Your task to perform on an android device: move an email to a new category in the gmail app Image 0: 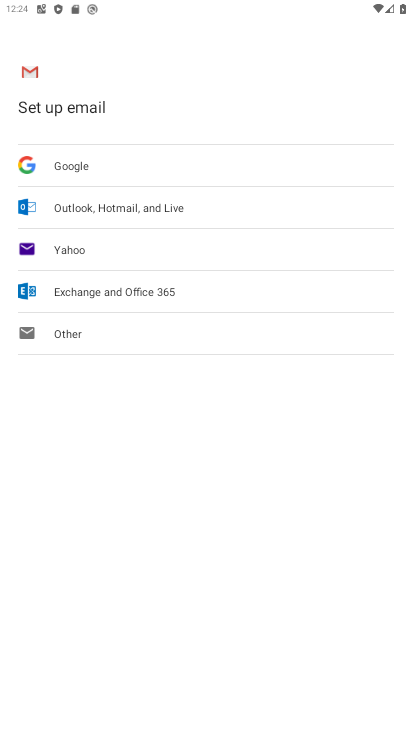
Step 0: press home button
Your task to perform on an android device: move an email to a new category in the gmail app Image 1: 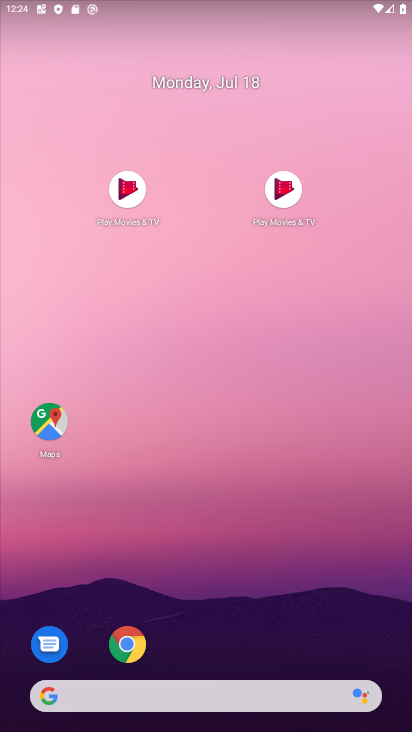
Step 1: drag from (274, 589) to (244, 41)
Your task to perform on an android device: move an email to a new category in the gmail app Image 2: 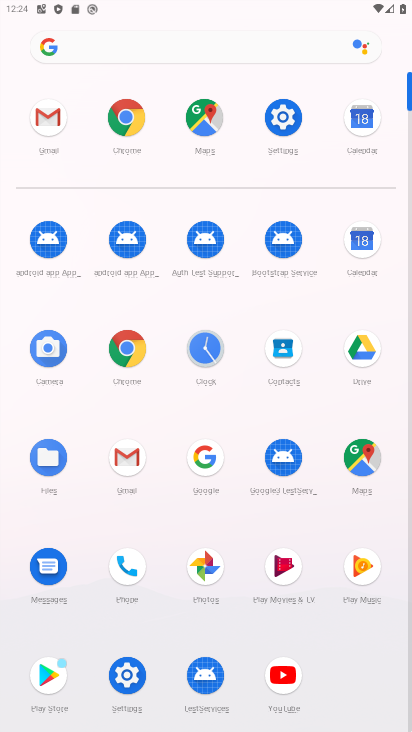
Step 2: click (51, 119)
Your task to perform on an android device: move an email to a new category in the gmail app Image 3: 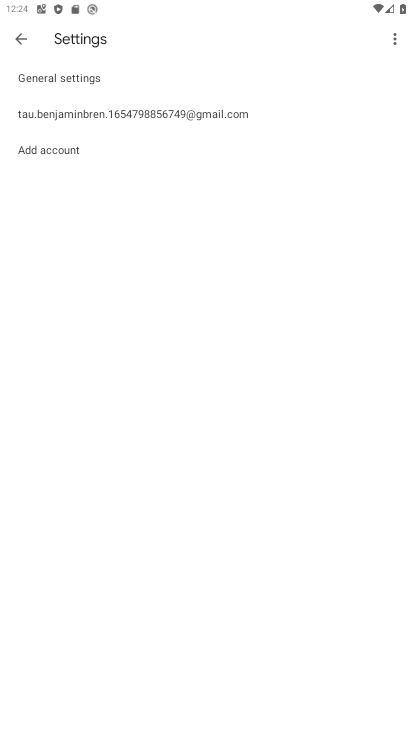
Step 3: click (23, 38)
Your task to perform on an android device: move an email to a new category in the gmail app Image 4: 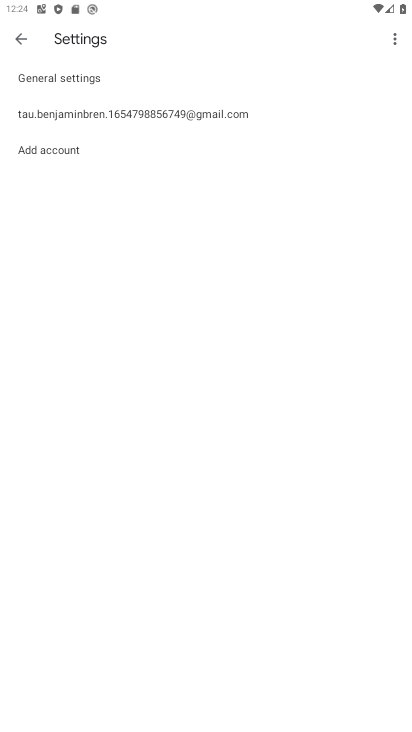
Step 4: click (23, 37)
Your task to perform on an android device: move an email to a new category in the gmail app Image 5: 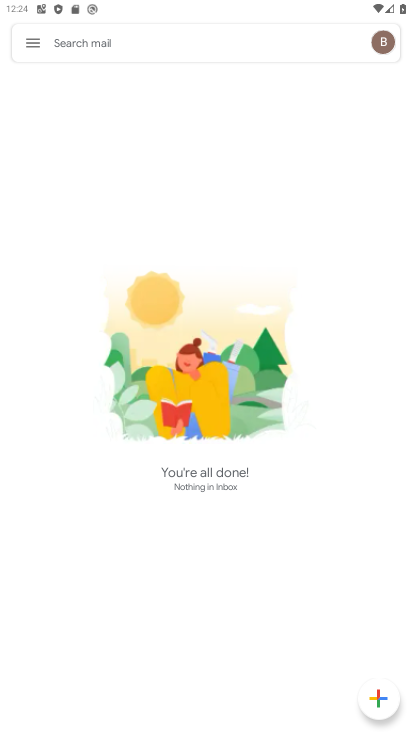
Step 5: click (23, 37)
Your task to perform on an android device: move an email to a new category in the gmail app Image 6: 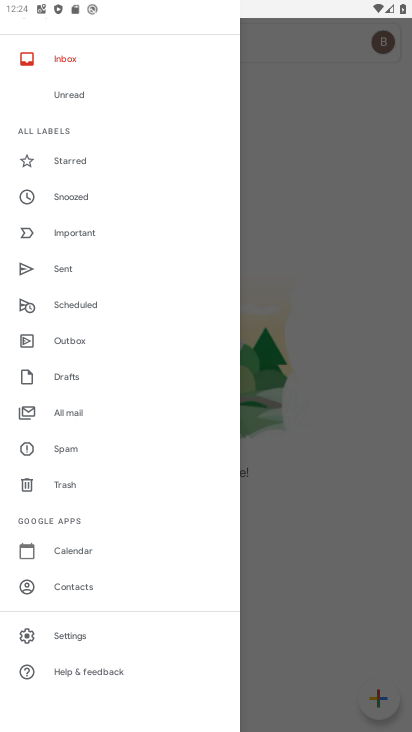
Step 6: click (75, 414)
Your task to perform on an android device: move an email to a new category in the gmail app Image 7: 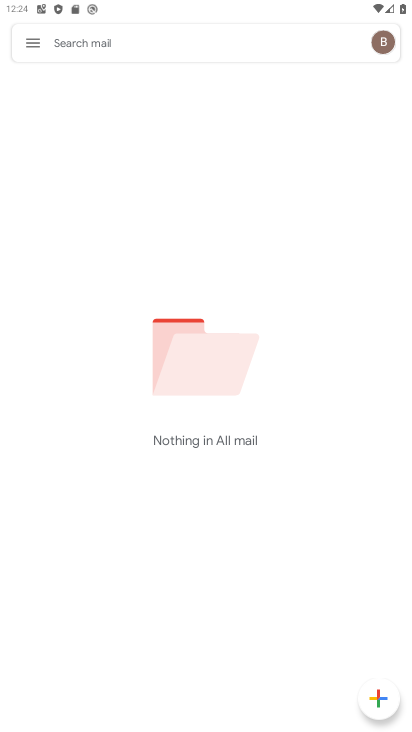
Step 7: task complete